Your task to perform on an android device: What's the weather going to be this weekend? Image 0: 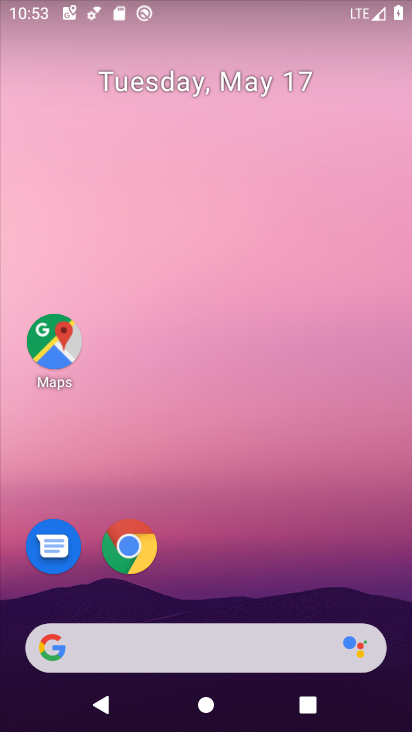
Step 0: click (207, 642)
Your task to perform on an android device: What's the weather going to be this weekend? Image 1: 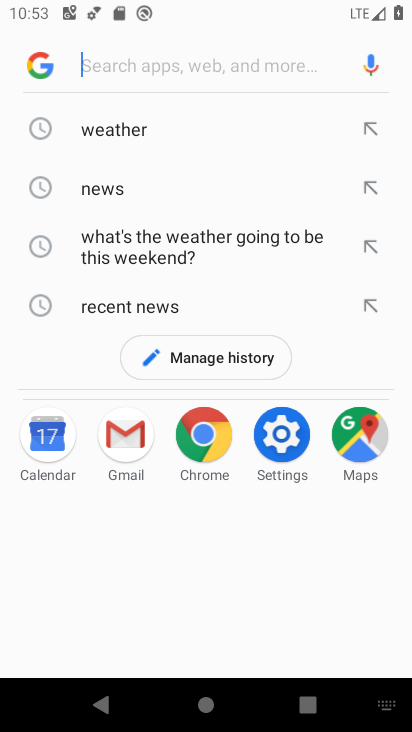
Step 1: click (140, 132)
Your task to perform on an android device: What's the weather going to be this weekend? Image 2: 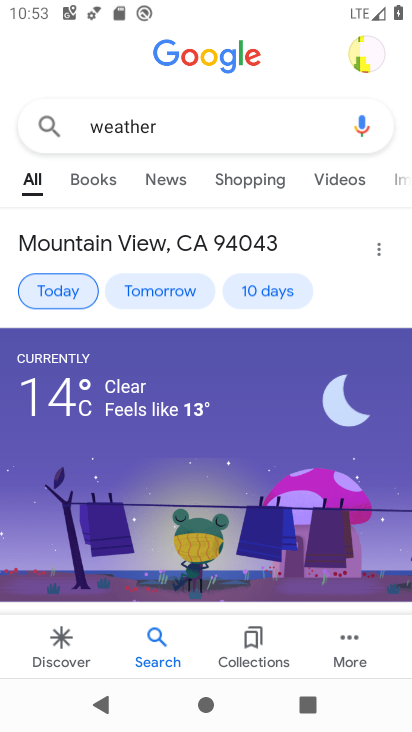
Step 2: click (274, 295)
Your task to perform on an android device: What's the weather going to be this weekend? Image 3: 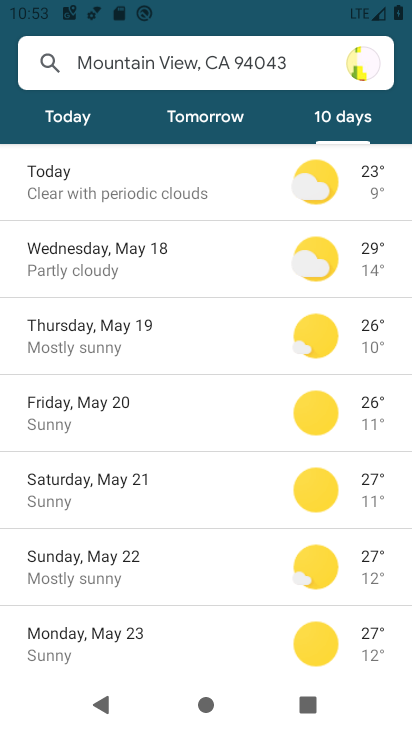
Step 3: task complete